Your task to perform on an android device: change the clock display to digital Image 0: 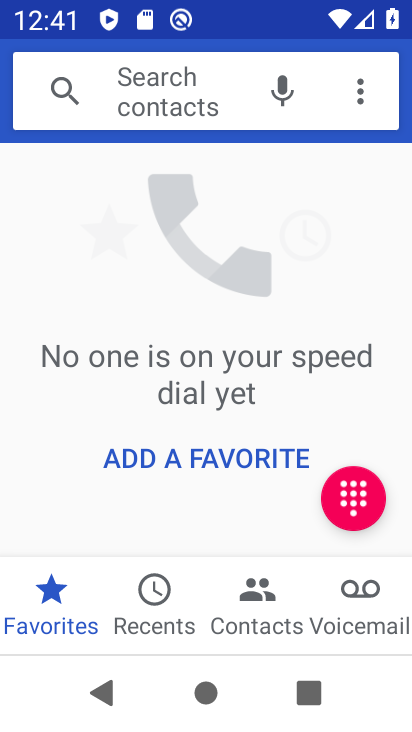
Step 0: press home button
Your task to perform on an android device: change the clock display to digital Image 1: 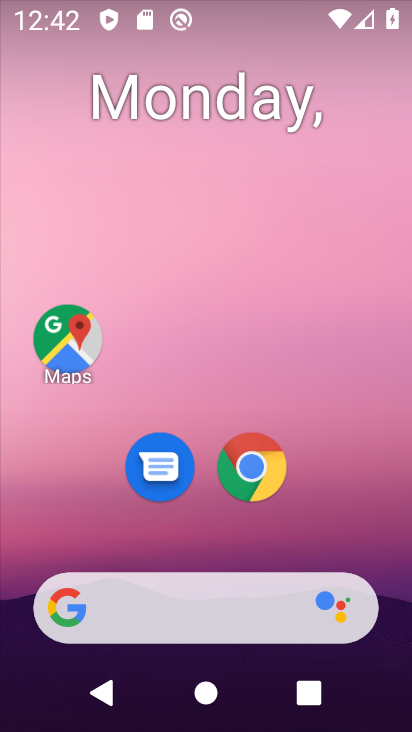
Step 1: drag from (334, 535) to (302, 5)
Your task to perform on an android device: change the clock display to digital Image 2: 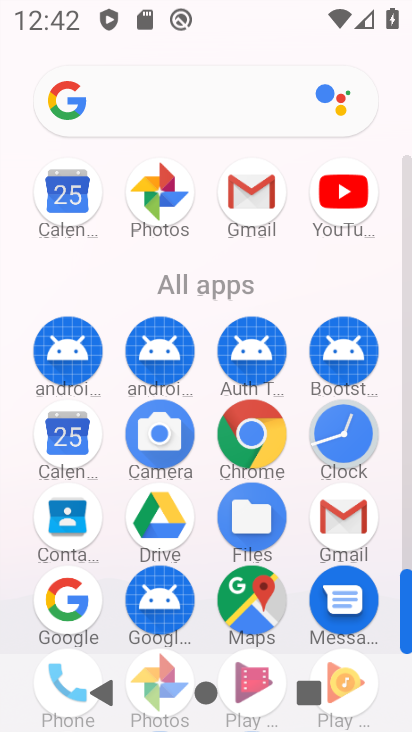
Step 2: click (341, 427)
Your task to perform on an android device: change the clock display to digital Image 3: 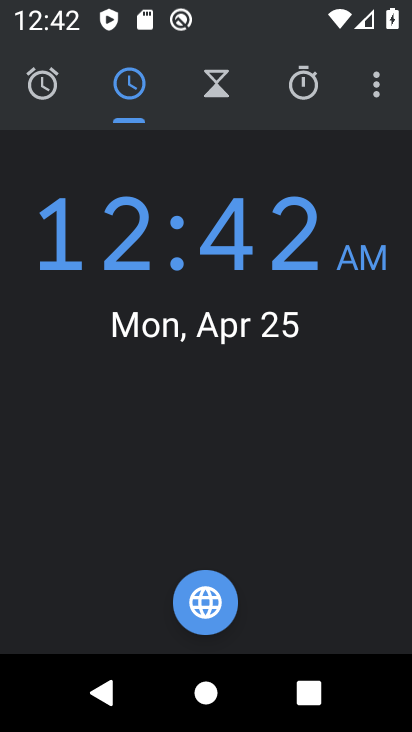
Step 3: click (370, 74)
Your task to perform on an android device: change the clock display to digital Image 4: 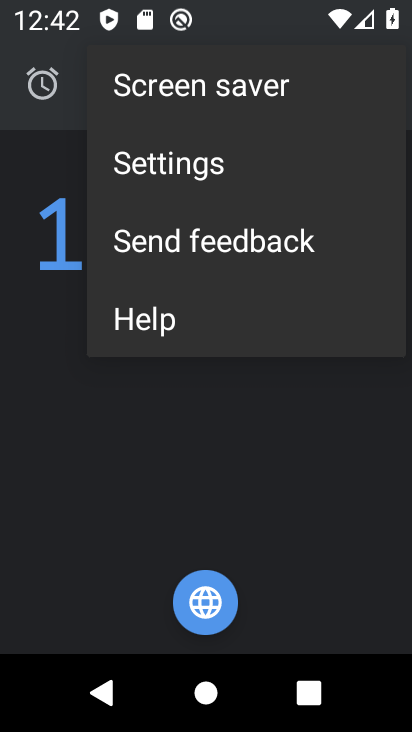
Step 4: click (244, 142)
Your task to perform on an android device: change the clock display to digital Image 5: 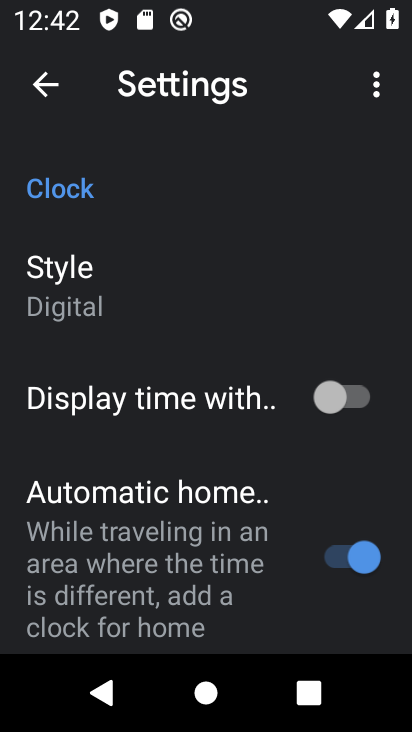
Step 5: click (125, 282)
Your task to perform on an android device: change the clock display to digital Image 6: 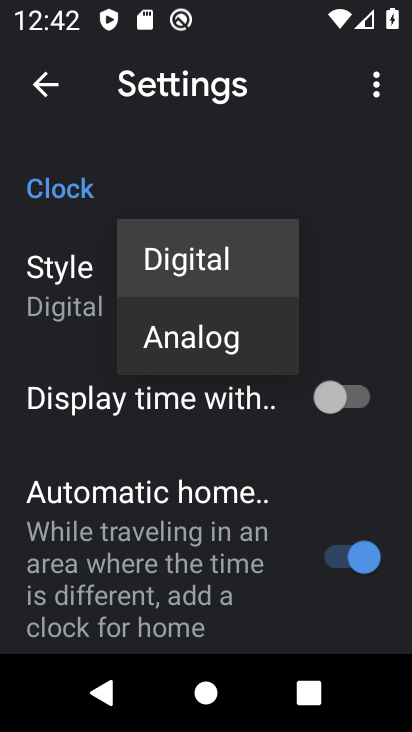
Step 6: click (144, 257)
Your task to perform on an android device: change the clock display to digital Image 7: 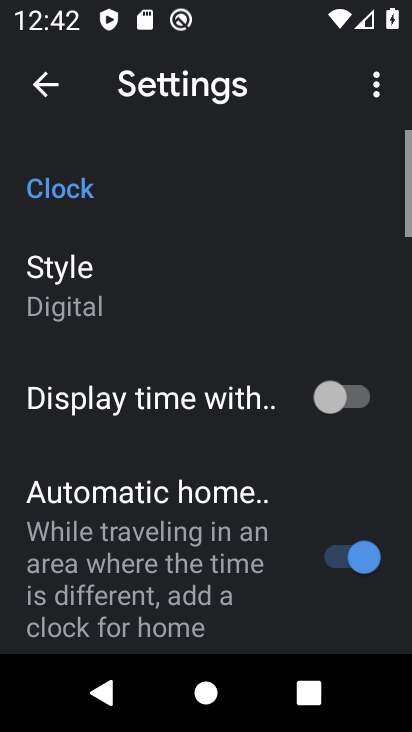
Step 7: task complete